Your task to perform on an android device: Open the map Image 0: 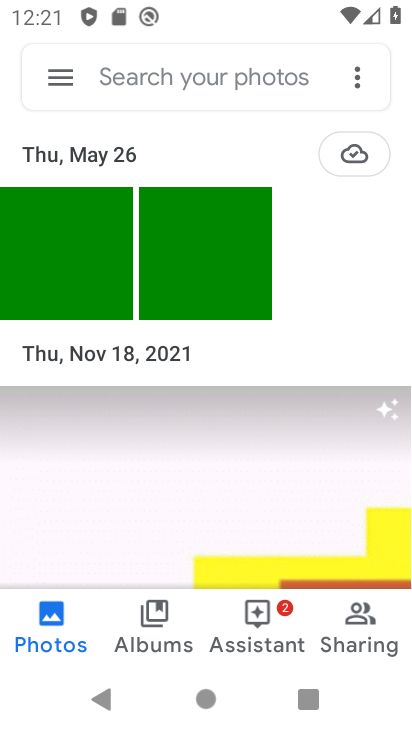
Step 0: press home button
Your task to perform on an android device: Open the map Image 1: 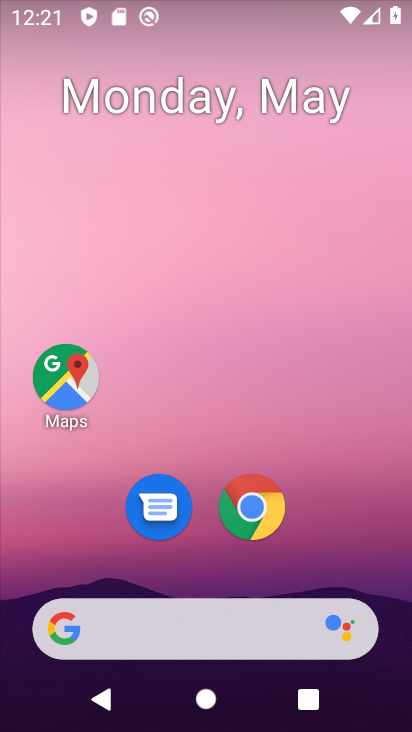
Step 1: drag from (229, 718) to (232, 156)
Your task to perform on an android device: Open the map Image 2: 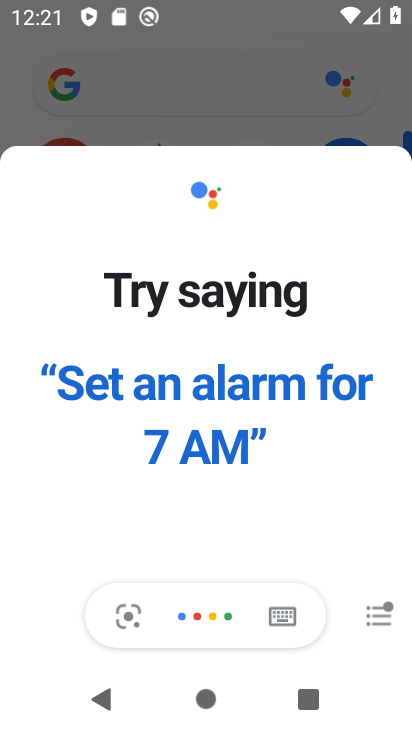
Step 2: click (336, 586)
Your task to perform on an android device: Open the map Image 3: 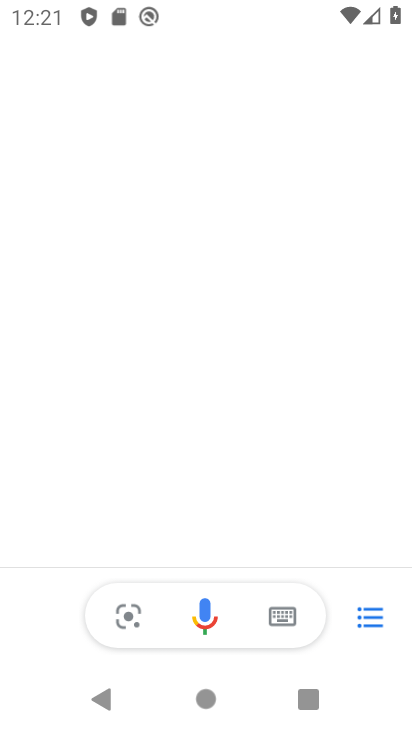
Step 3: press home button
Your task to perform on an android device: Open the map Image 4: 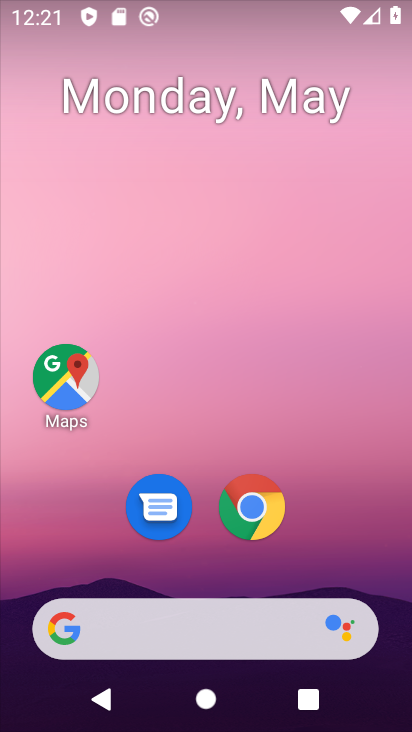
Step 4: drag from (242, 722) to (208, 134)
Your task to perform on an android device: Open the map Image 5: 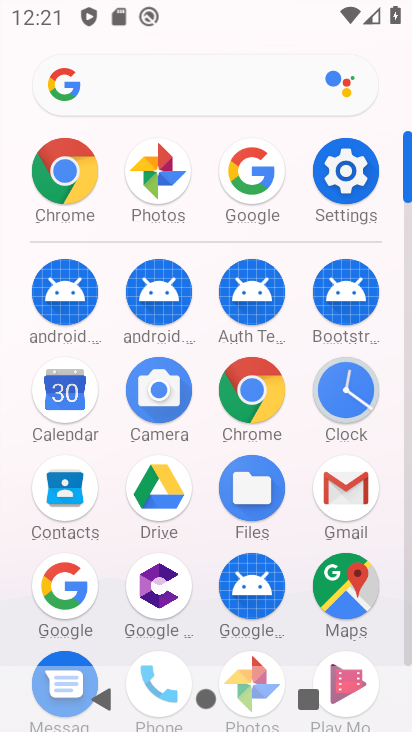
Step 5: click (354, 591)
Your task to perform on an android device: Open the map Image 6: 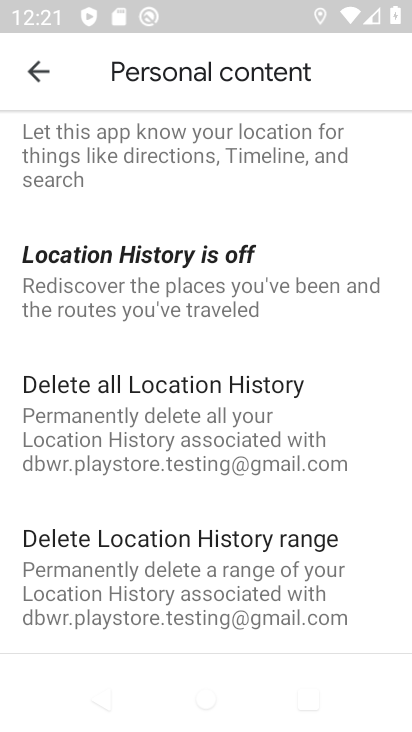
Step 6: click (39, 77)
Your task to perform on an android device: Open the map Image 7: 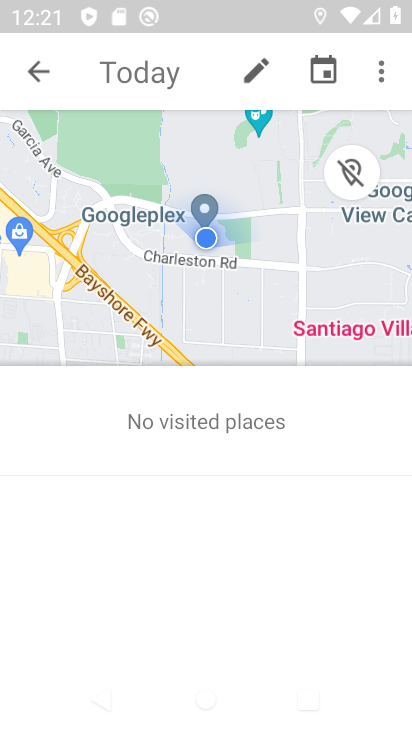
Step 7: task complete